Your task to perform on an android device: Open the Play Movies app and select the watchlist tab. Image 0: 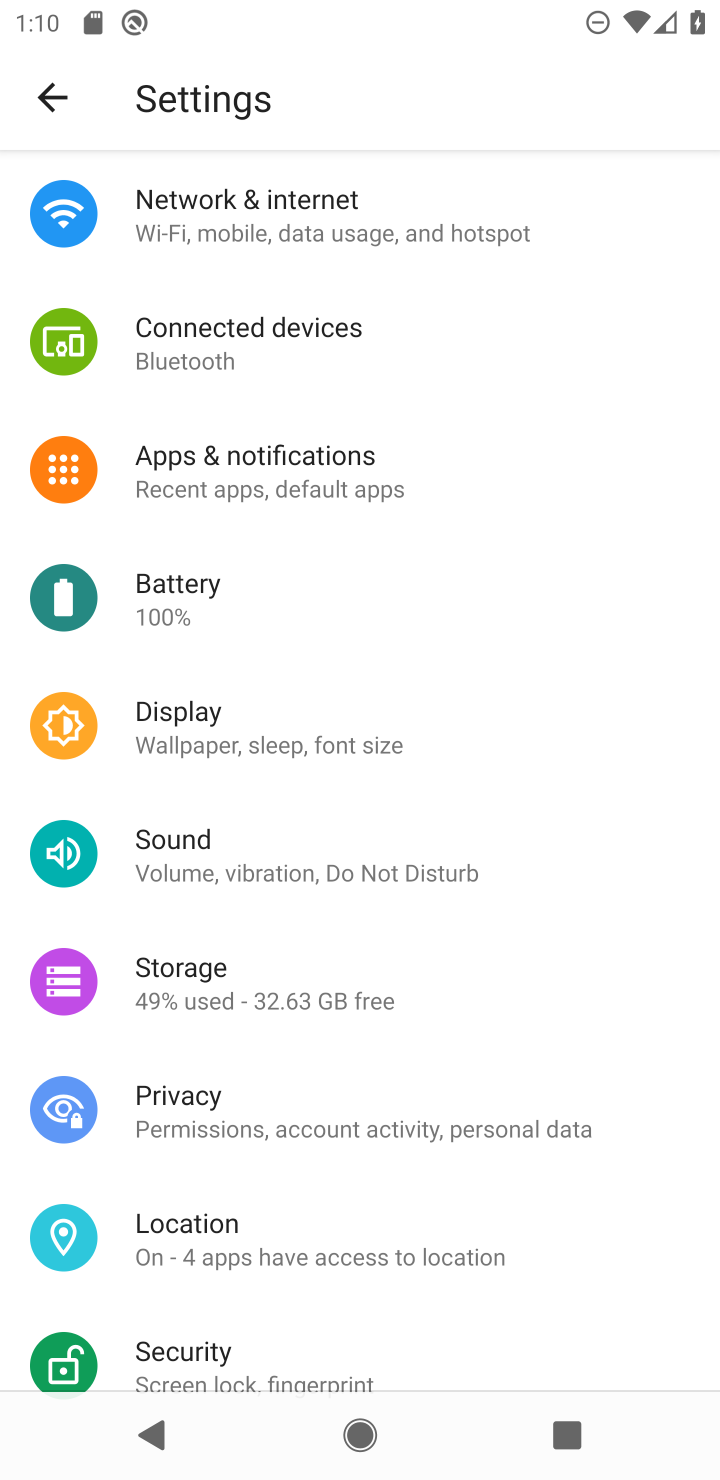
Step 0: press back button
Your task to perform on an android device: Open the Play Movies app and select the watchlist tab. Image 1: 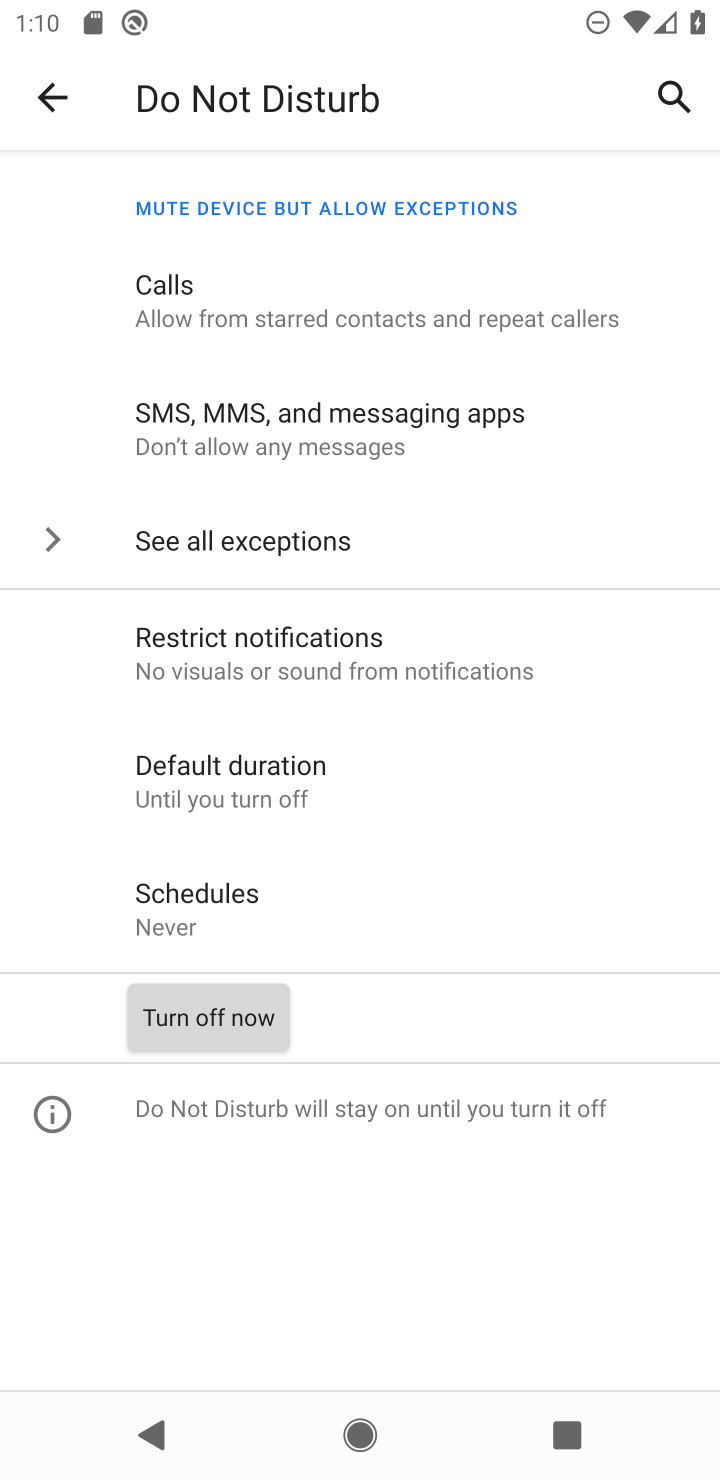
Step 1: press back button
Your task to perform on an android device: Open the Play Movies app and select the watchlist tab. Image 2: 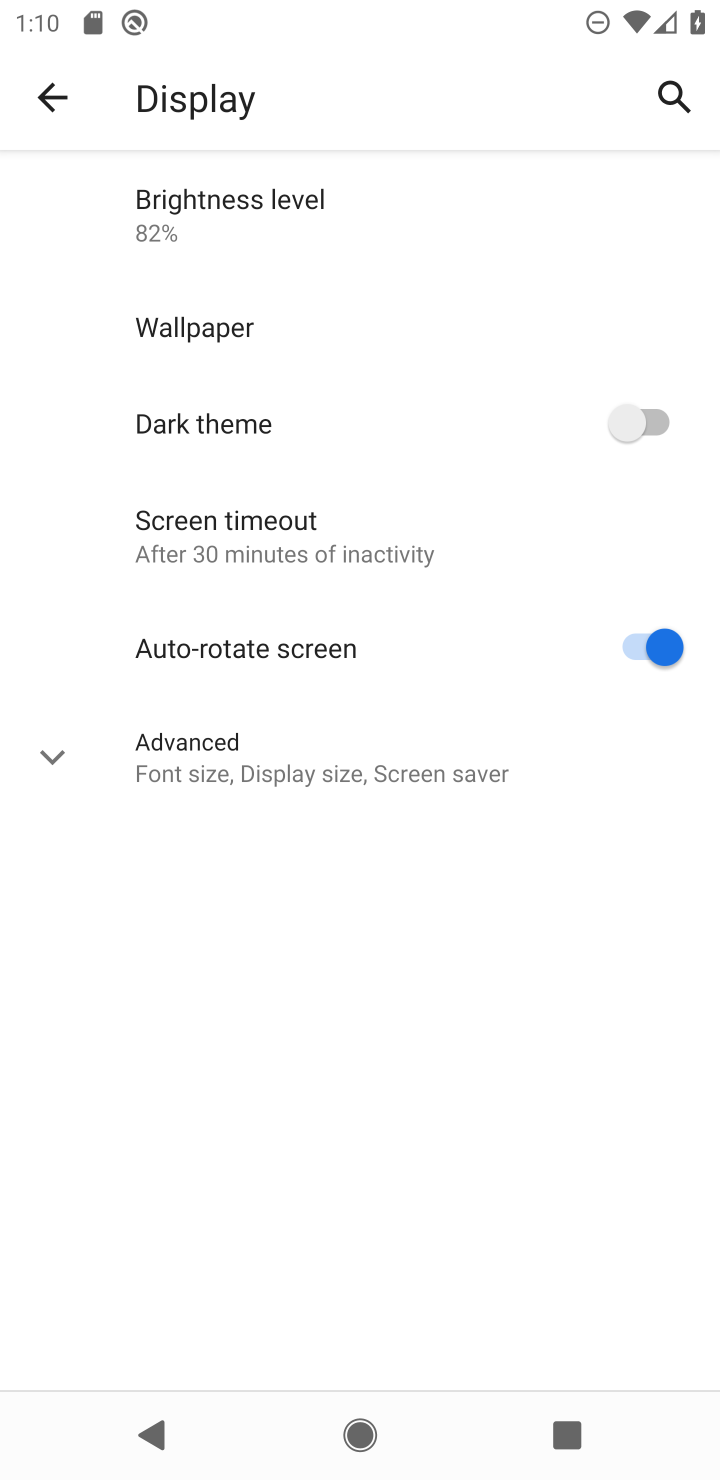
Step 2: press back button
Your task to perform on an android device: Open the Play Movies app and select the watchlist tab. Image 3: 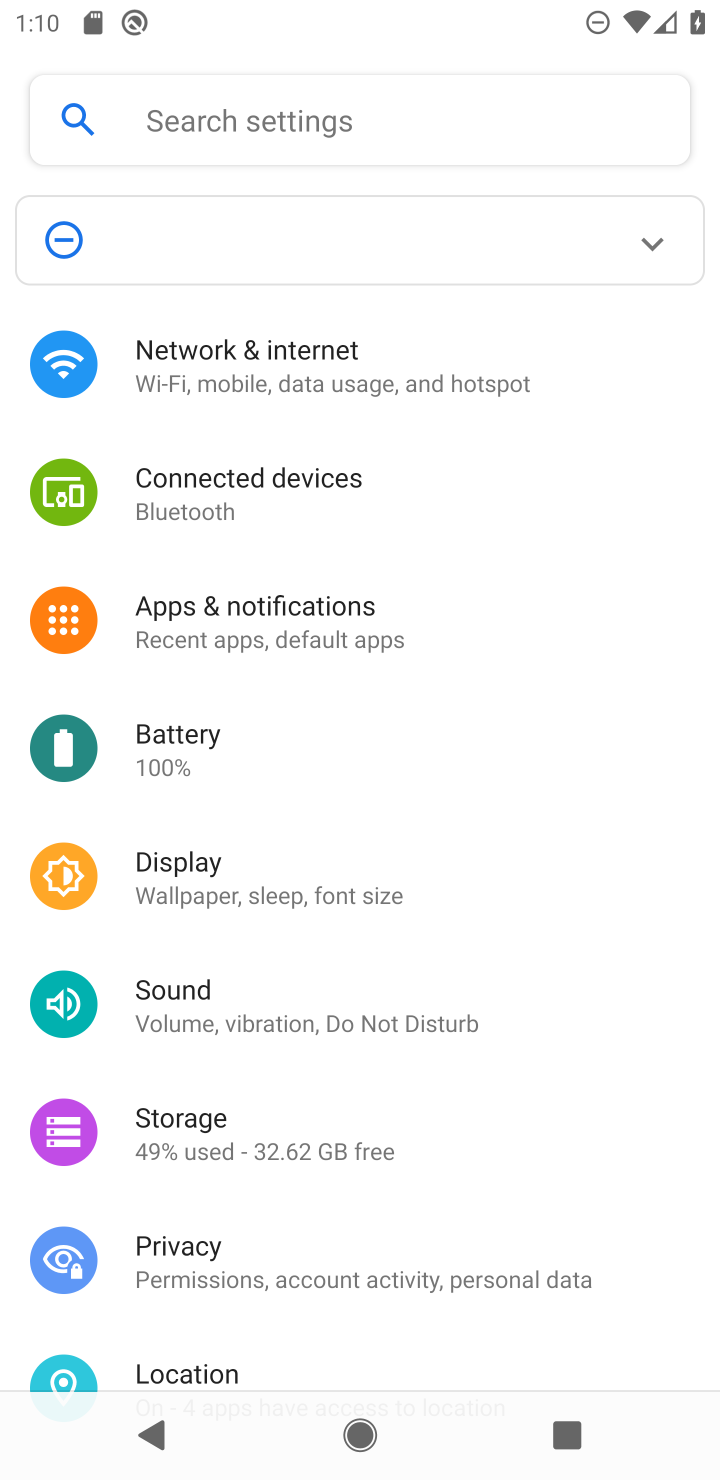
Step 3: press back button
Your task to perform on an android device: Open the Play Movies app and select the watchlist tab. Image 4: 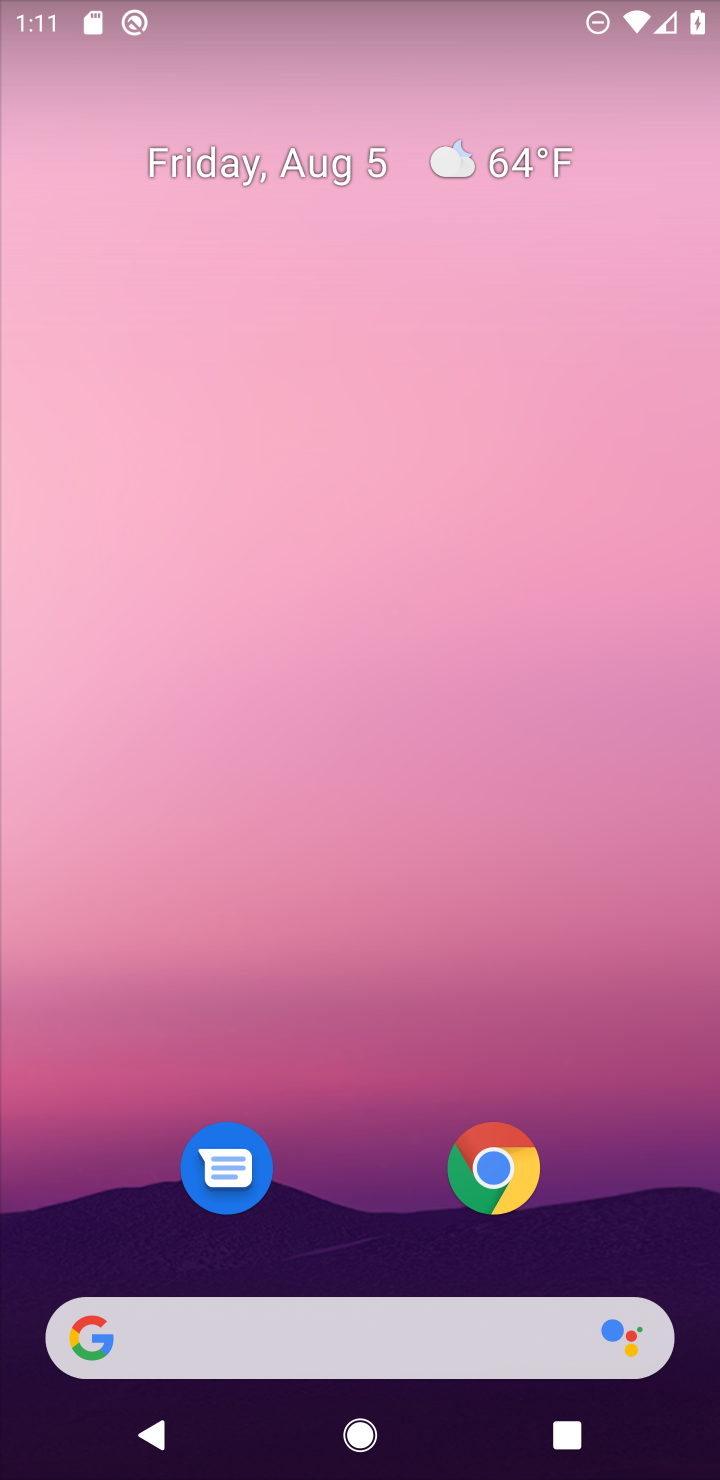
Step 4: drag from (364, 1131) to (514, 0)
Your task to perform on an android device: Open the Play Movies app and select the watchlist tab. Image 5: 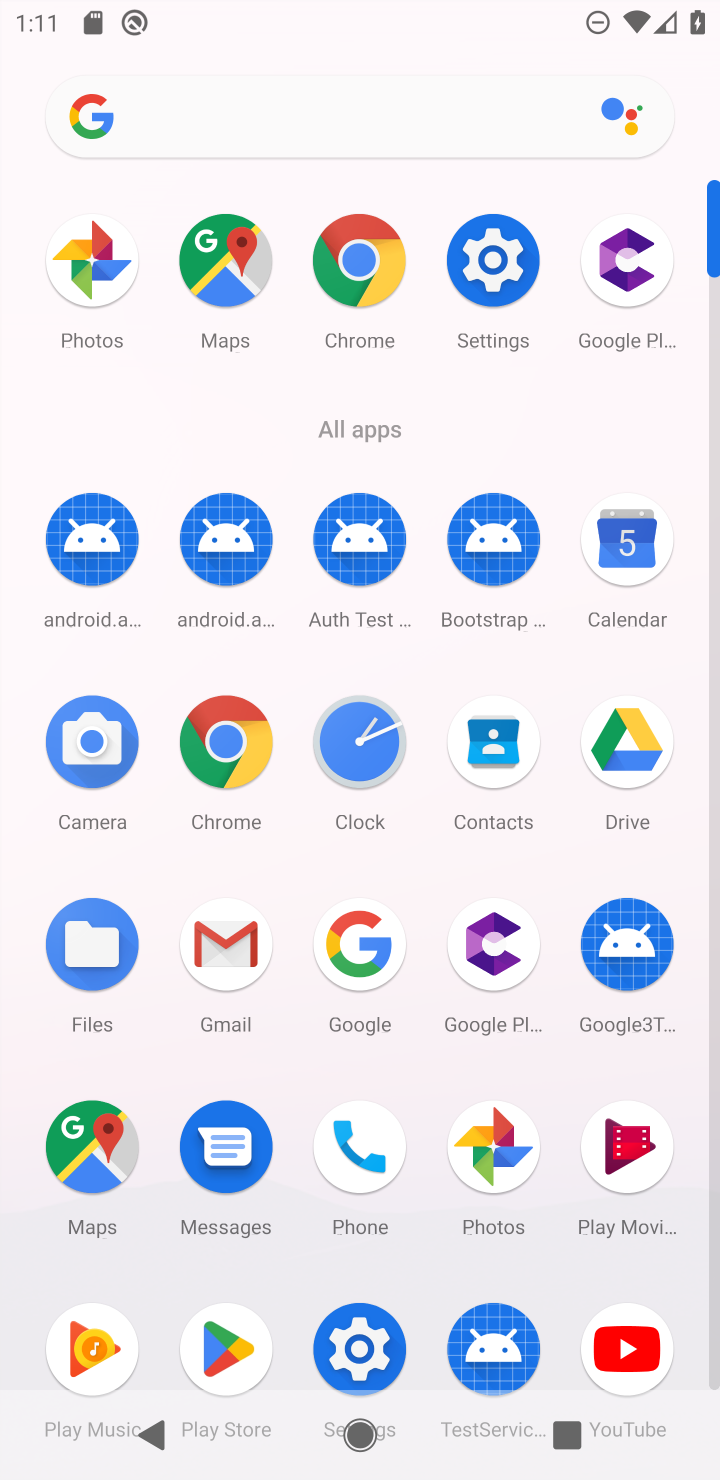
Step 5: click (619, 1154)
Your task to perform on an android device: Open the Play Movies app and select the watchlist tab. Image 6: 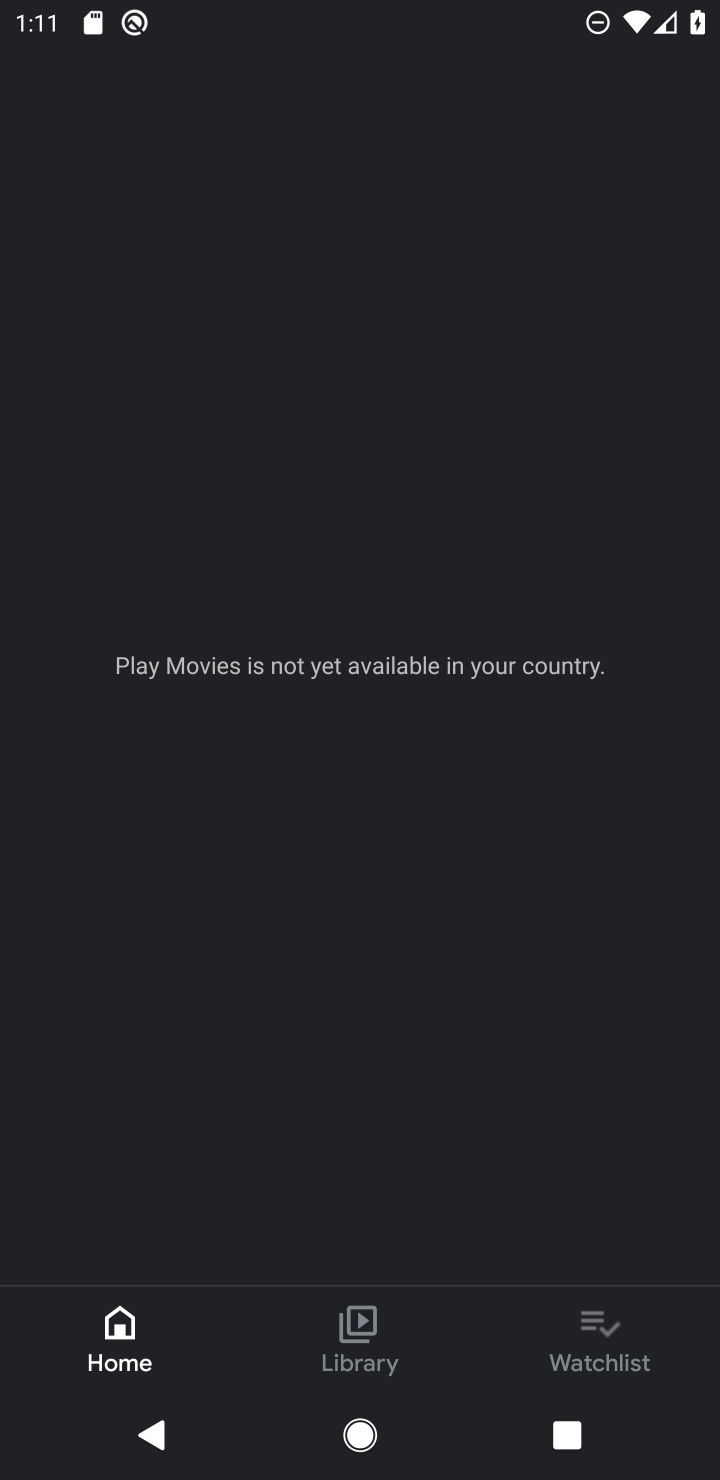
Step 6: click (620, 1339)
Your task to perform on an android device: Open the Play Movies app and select the watchlist tab. Image 7: 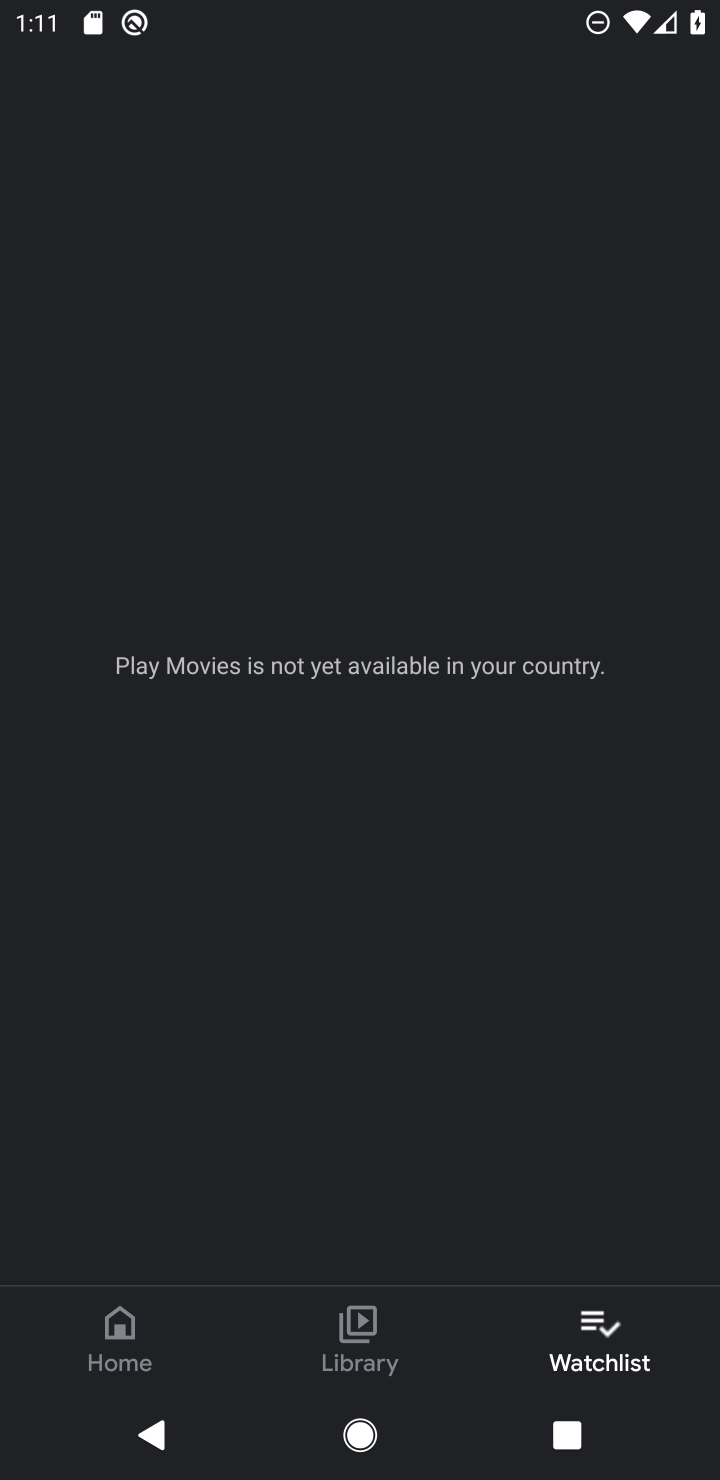
Step 7: task complete